Your task to perform on an android device: Go to battery settings Image 0: 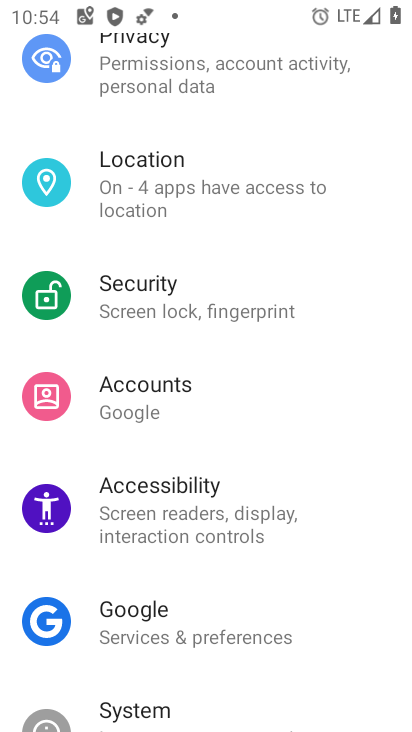
Step 0: drag from (198, 152) to (218, 468)
Your task to perform on an android device: Go to battery settings Image 1: 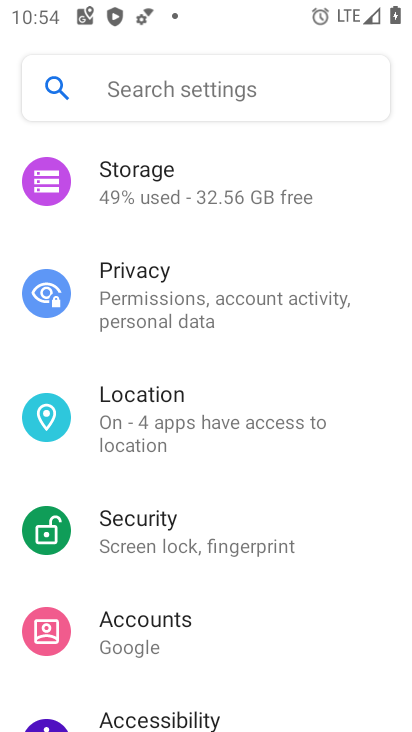
Step 1: drag from (201, 234) to (231, 553)
Your task to perform on an android device: Go to battery settings Image 2: 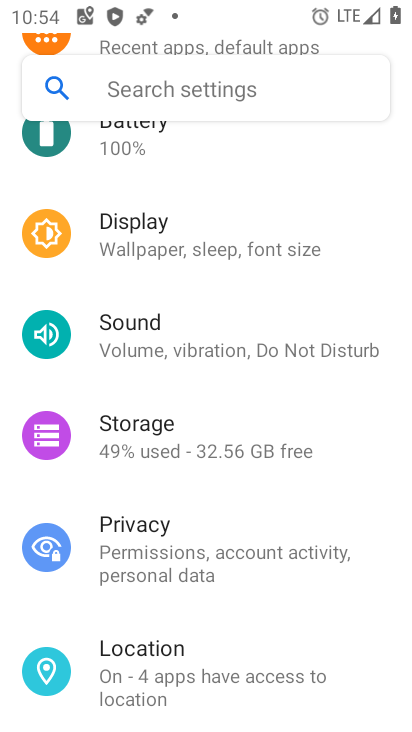
Step 2: drag from (173, 263) to (205, 510)
Your task to perform on an android device: Go to battery settings Image 3: 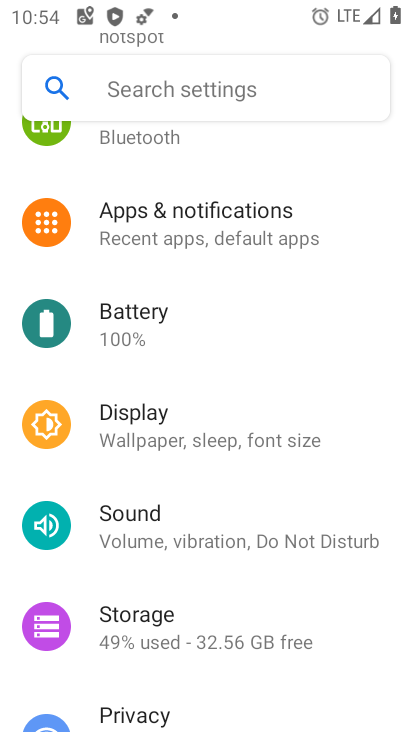
Step 3: click (180, 332)
Your task to perform on an android device: Go to battery settings Image 4: 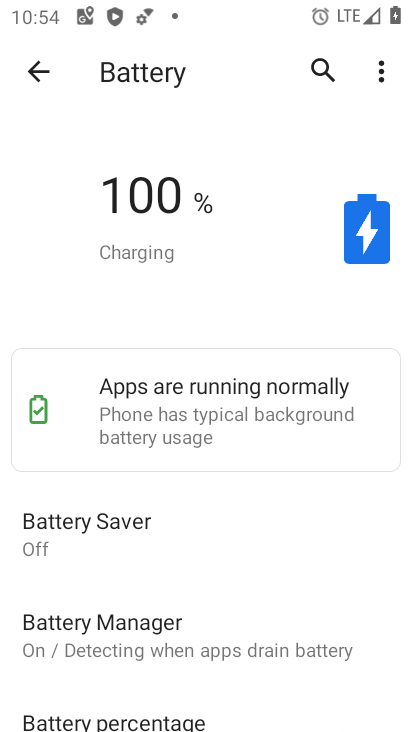
Step 4: task complete